Your task to perform on an android device: Search for the best vacuum on Amazon. Image 0: 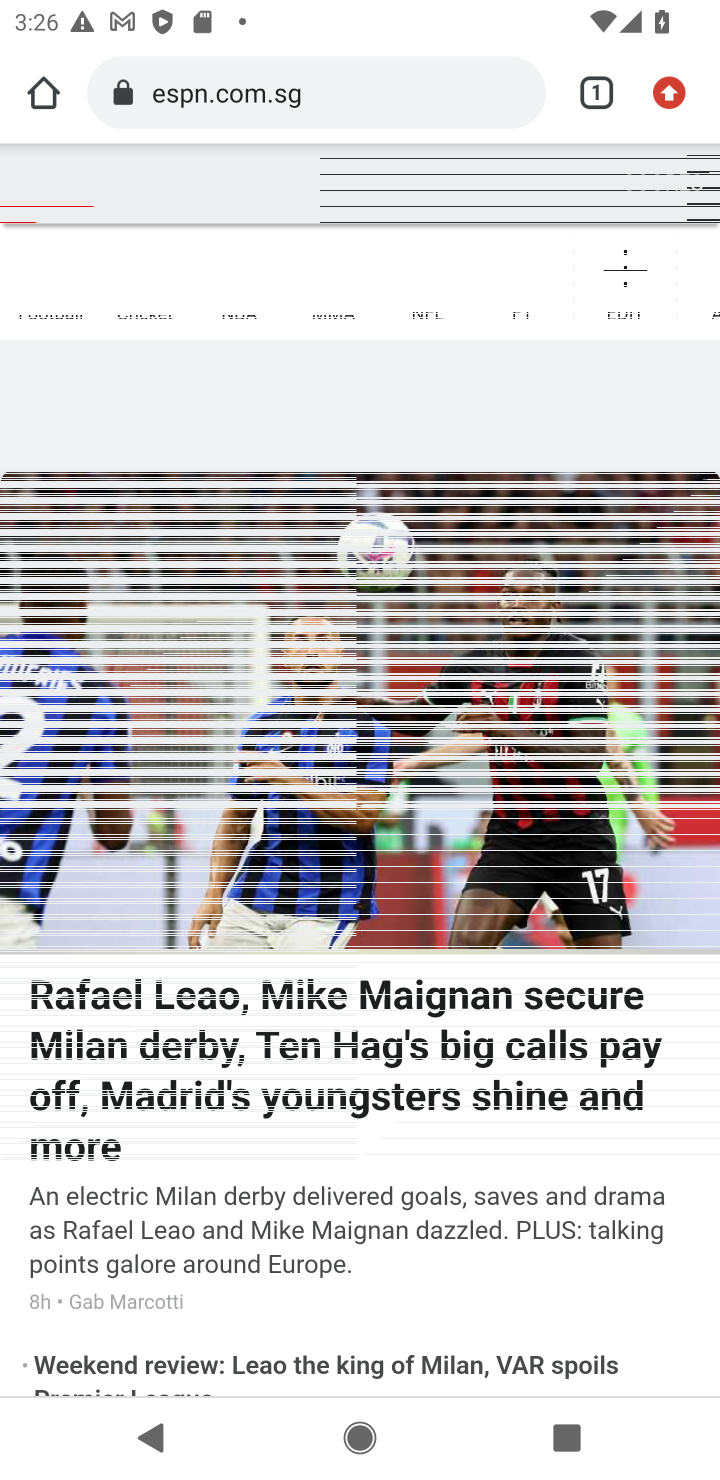
Step 0: press home button
Your task to perform on an android device: Search for the best vacuum on Amazon. Image 1: 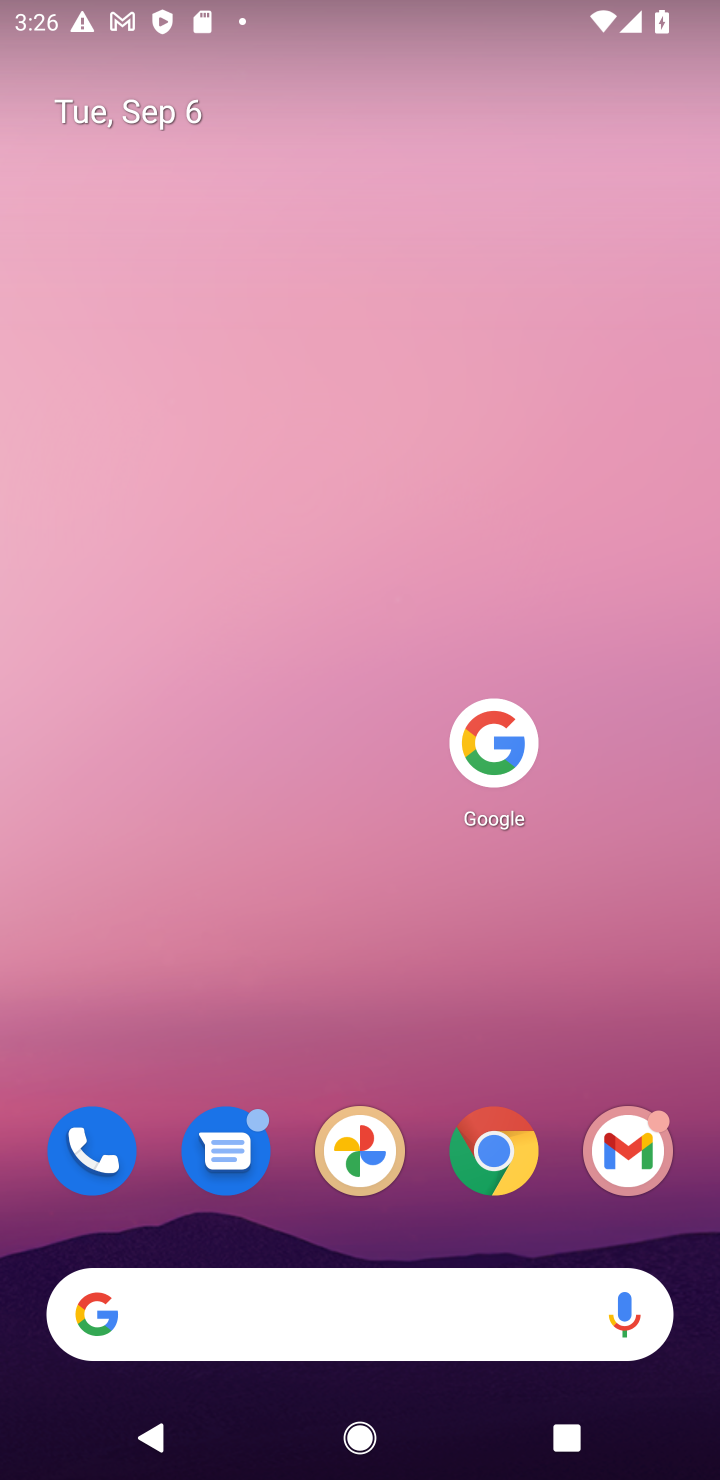
Step 1: click (500, 752)
Your task to perform on an android device: Search for the best vacuum on Amazon. Image 2: 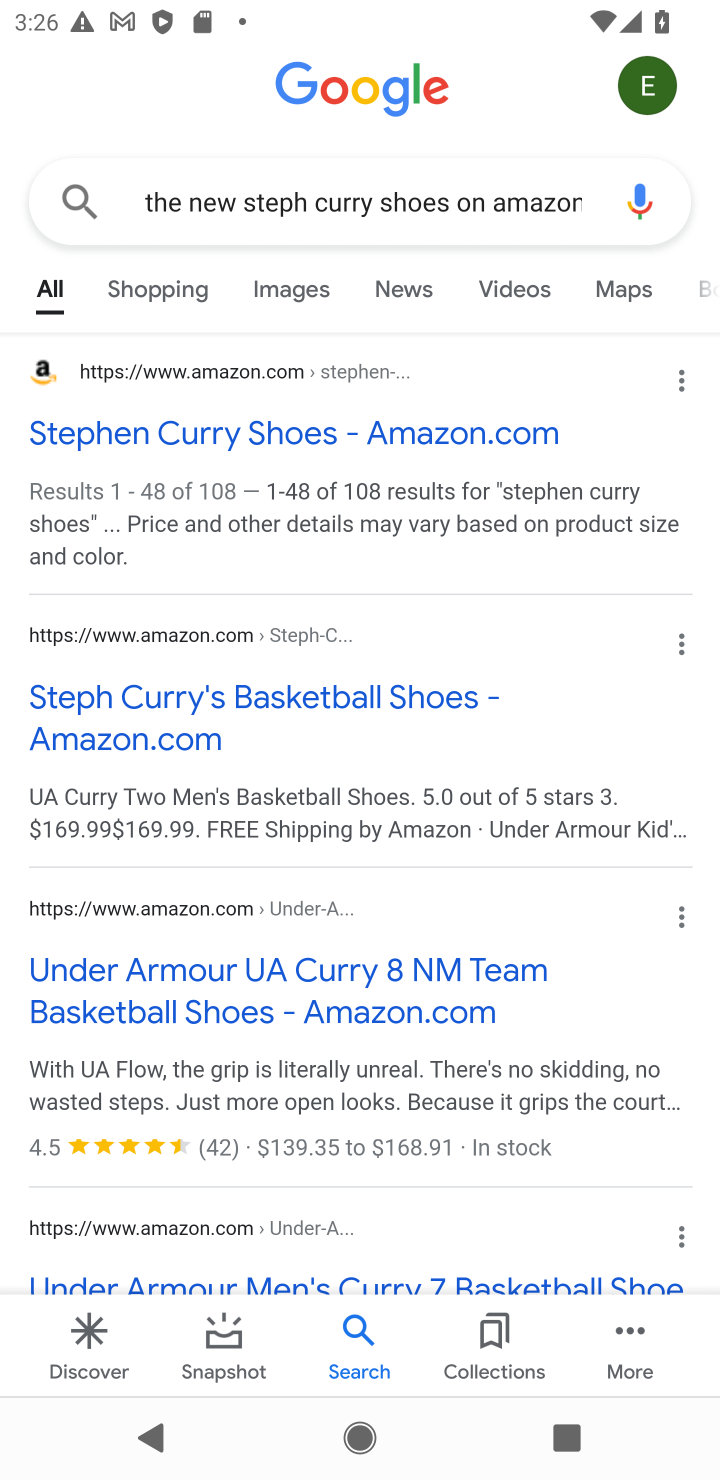
Step 2: click (349, 199)
Your task to perform on an android device: Search for the best vacuum on Amazon. Image 3: 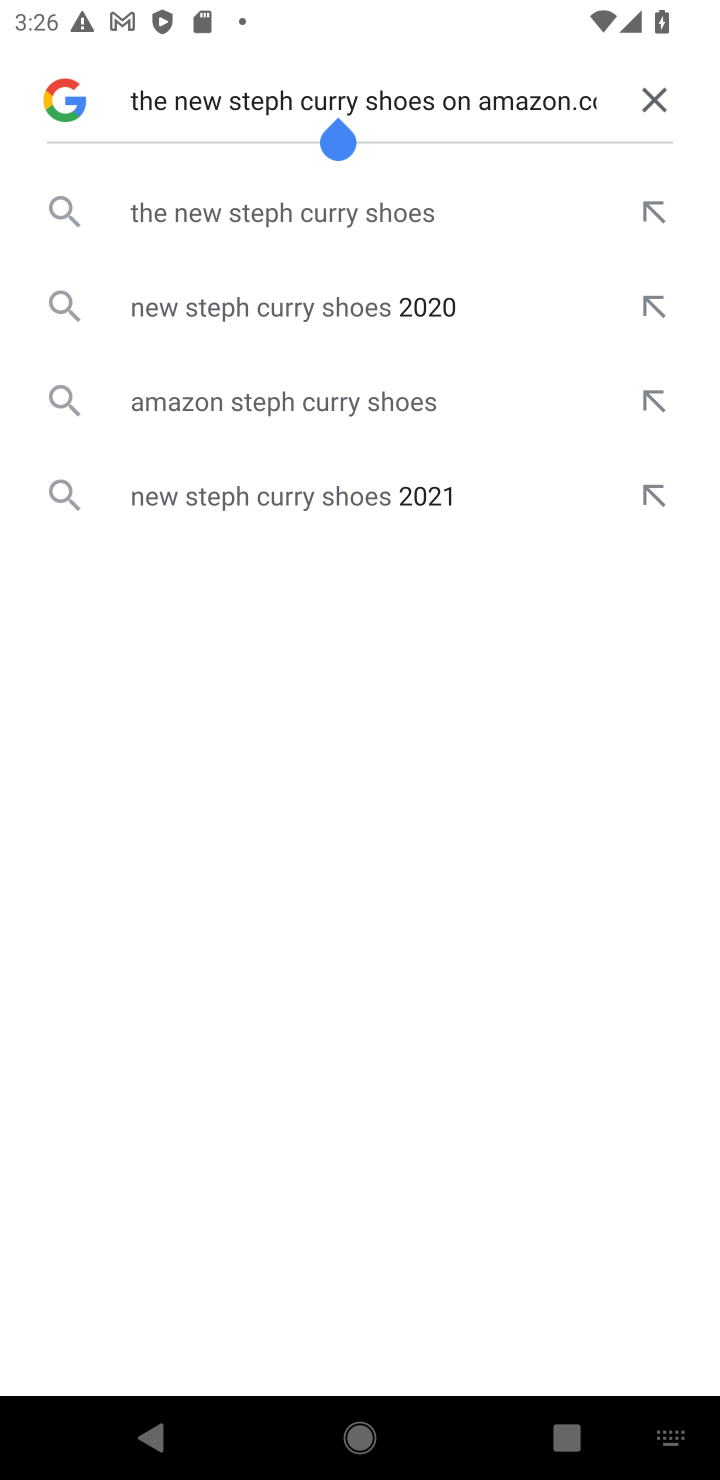
Step 3: click (663, 100)
Your task to perform on an android device: Search for the best vacuum on Amazon. Image 4: 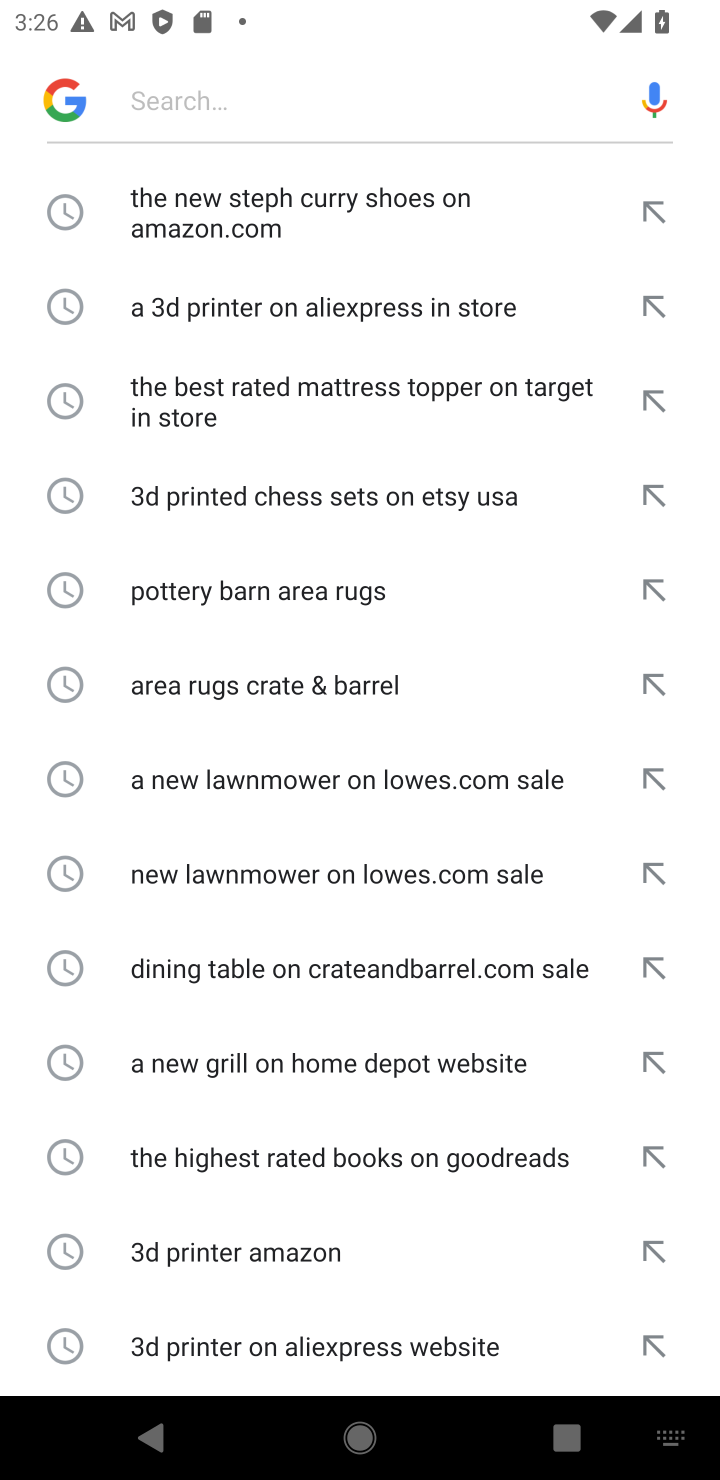
Step 4: click (415, 65)
Your task to perform on an android device: Search for the best vacuum on Amazon. Image 5: 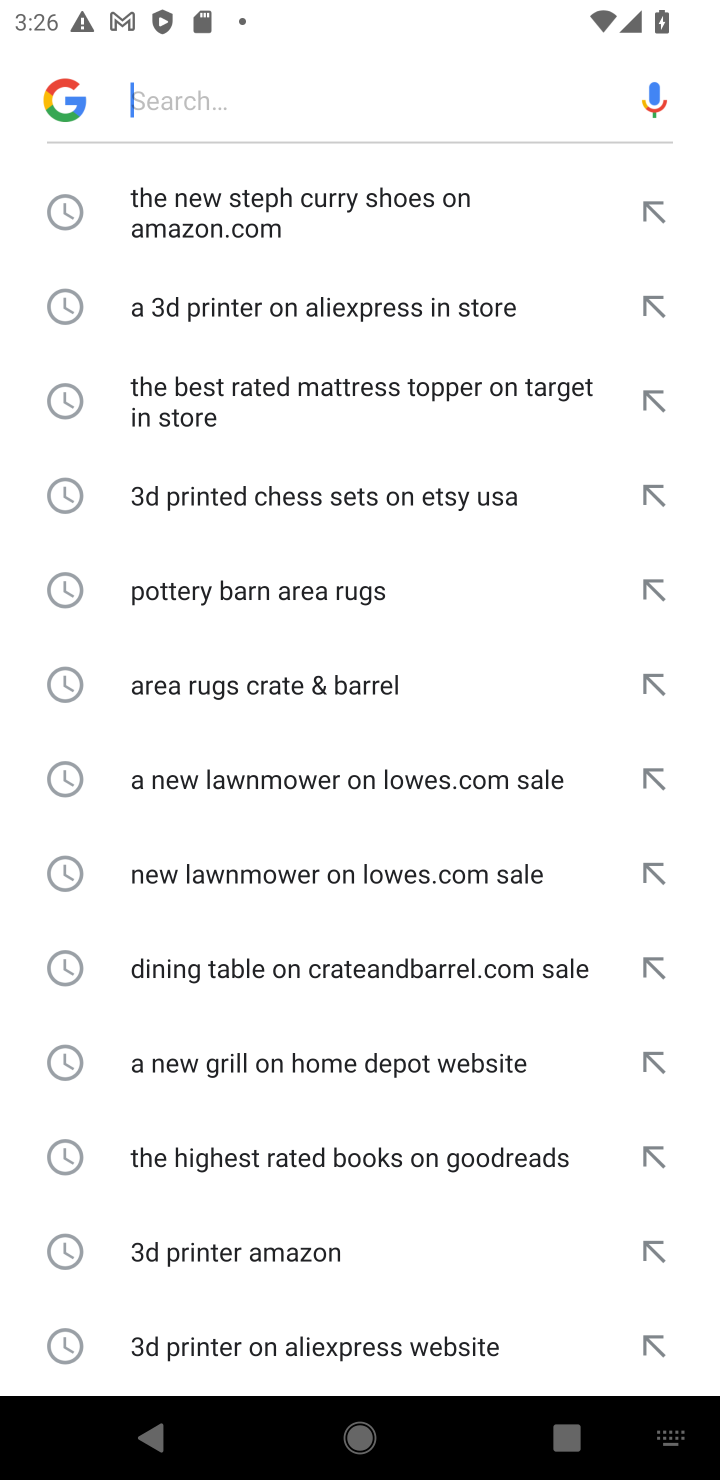
Step 5: type "the best vacuum on Amazon "
Your task to perform on an android device: Search for the best vacuum on Amazon. Image 6: 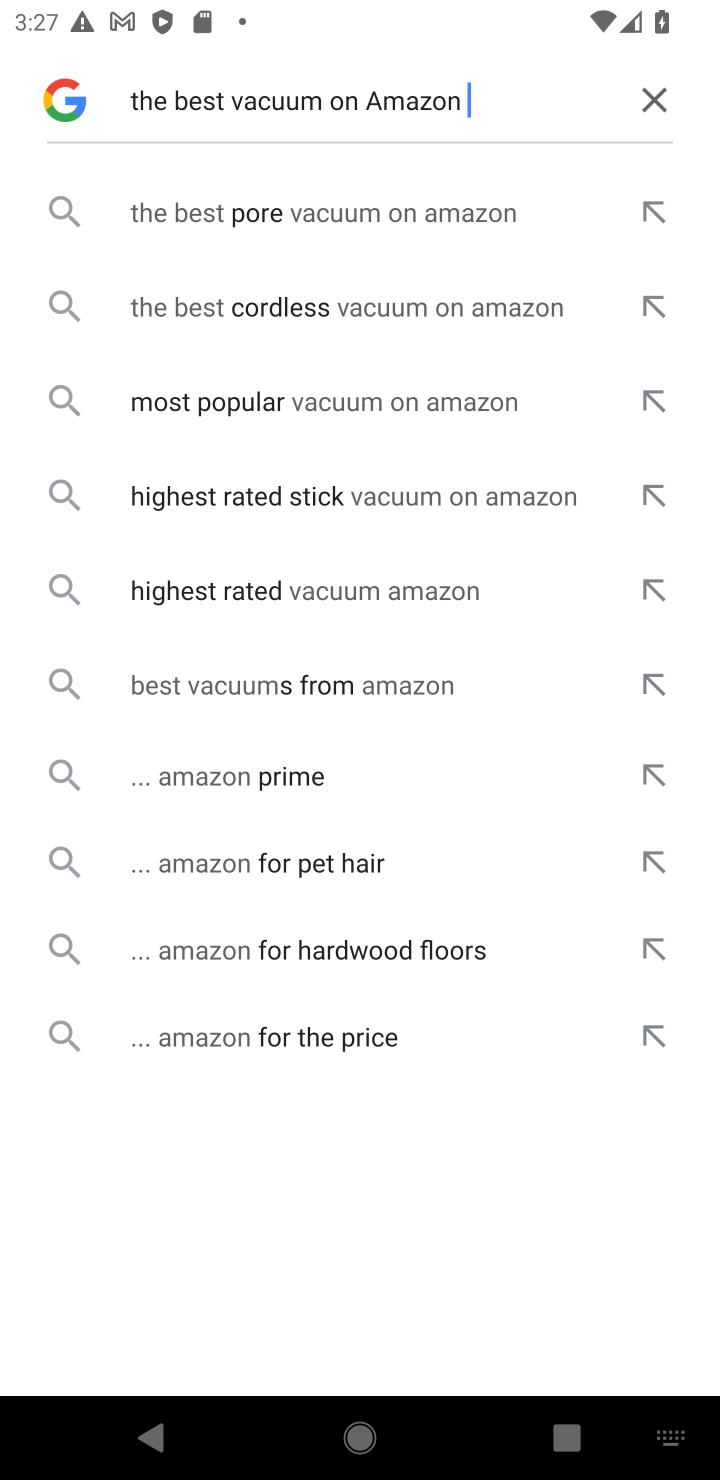
Step 6: click (397, 218)
Your task to perform on an android device: Search for the best vacuum on Amazon. Image 7: 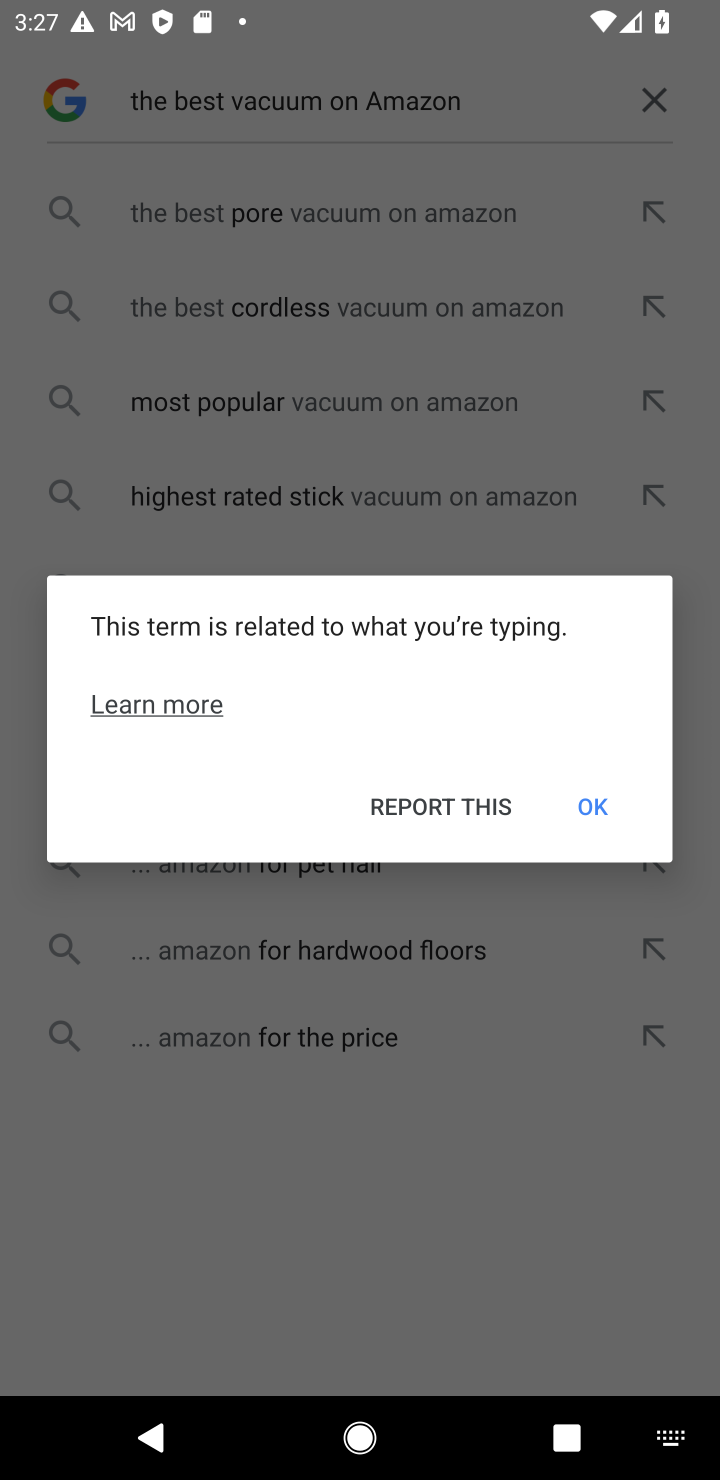
Step 7: click (590, 788)
Your task to perform on an android device: Search for the best vacuum on Amazon. Image 8: 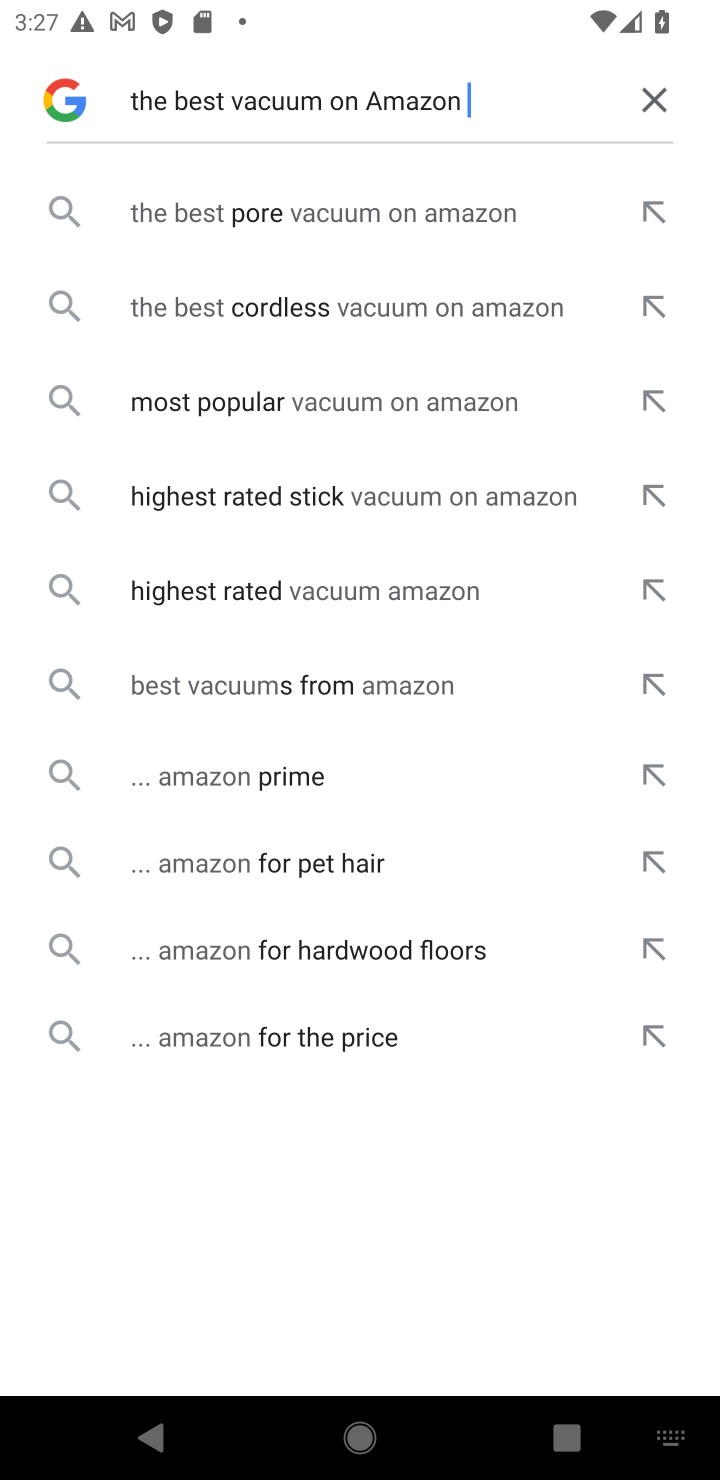
Step 8: click (399, 327)
Your task to perform on an android device: Search for the best vacuum on Amazon. Image 9: 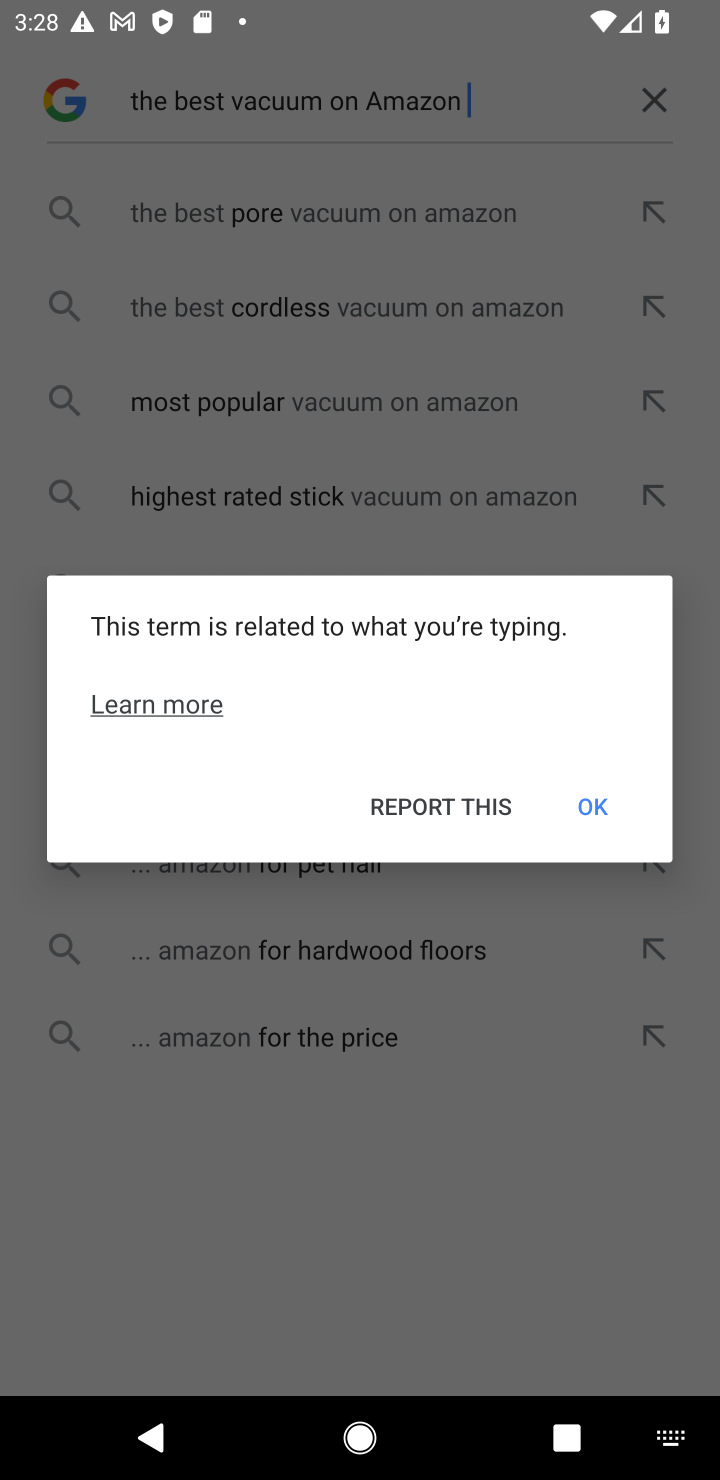
Step 9: click (597, 783)
Your task to perform on an android device: Search for the best vacuum on Amazon. Image 10: 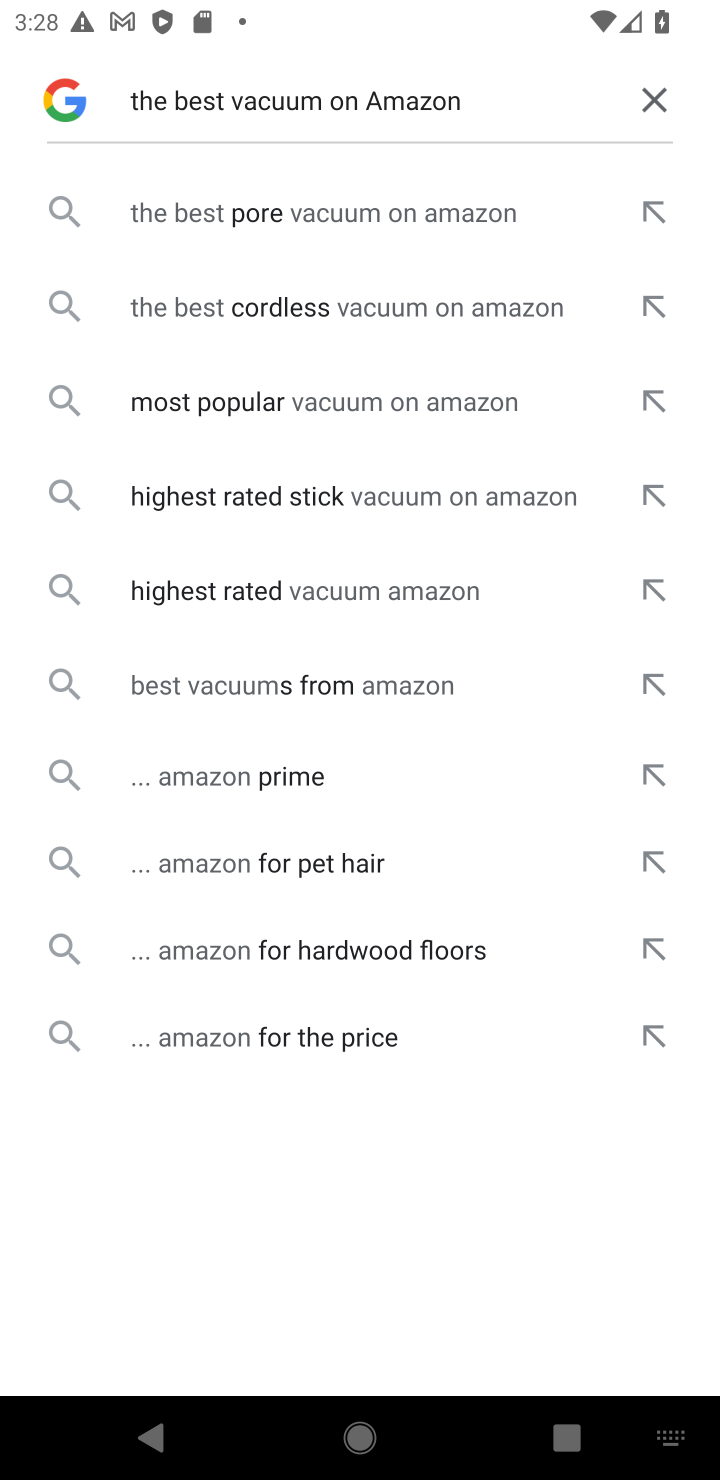
Step 10: click (364, 627)
Your task to perform on an android device: Search for the best vacuum on Amazon. Image 11: 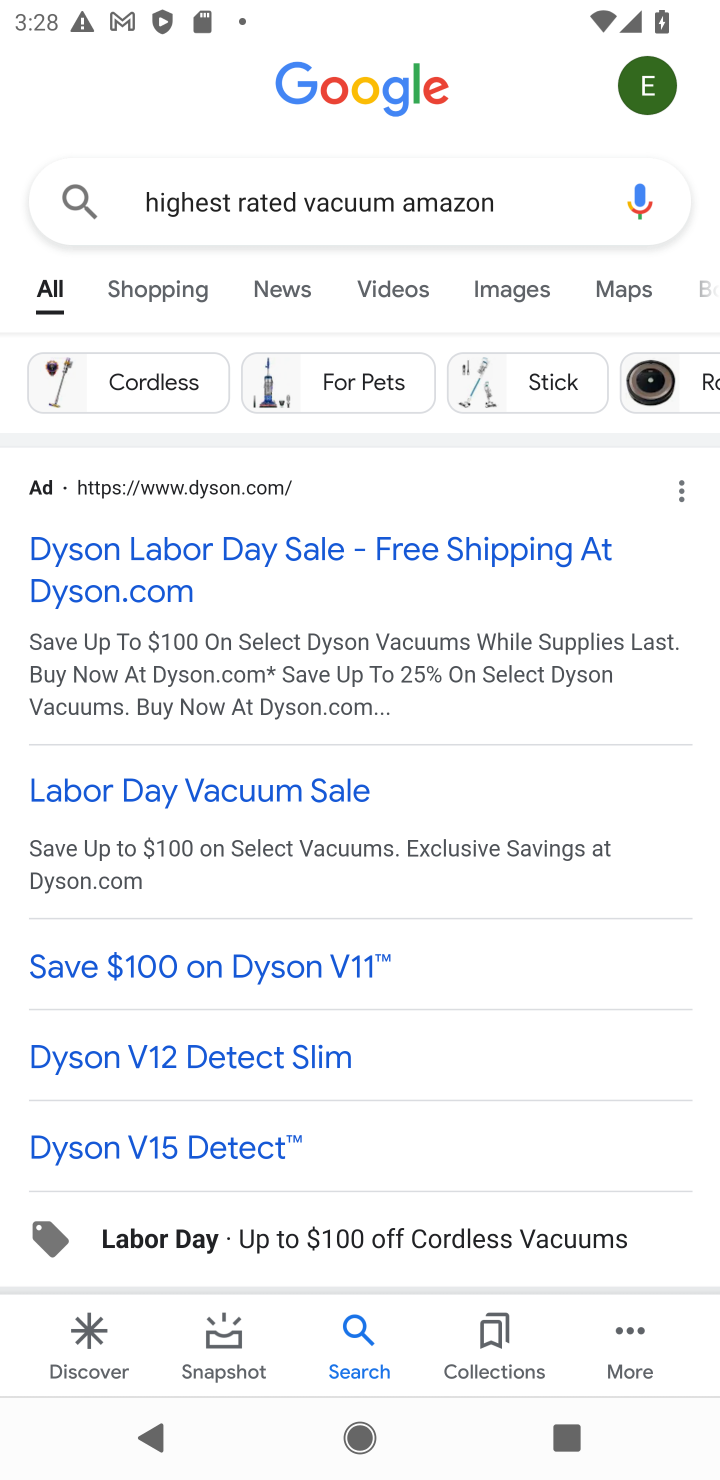
Step 11: drag from (298, 1029) to (410, 367)
Your task to perform on an android device: Search for the best vacuum on Amazon. Image 12: 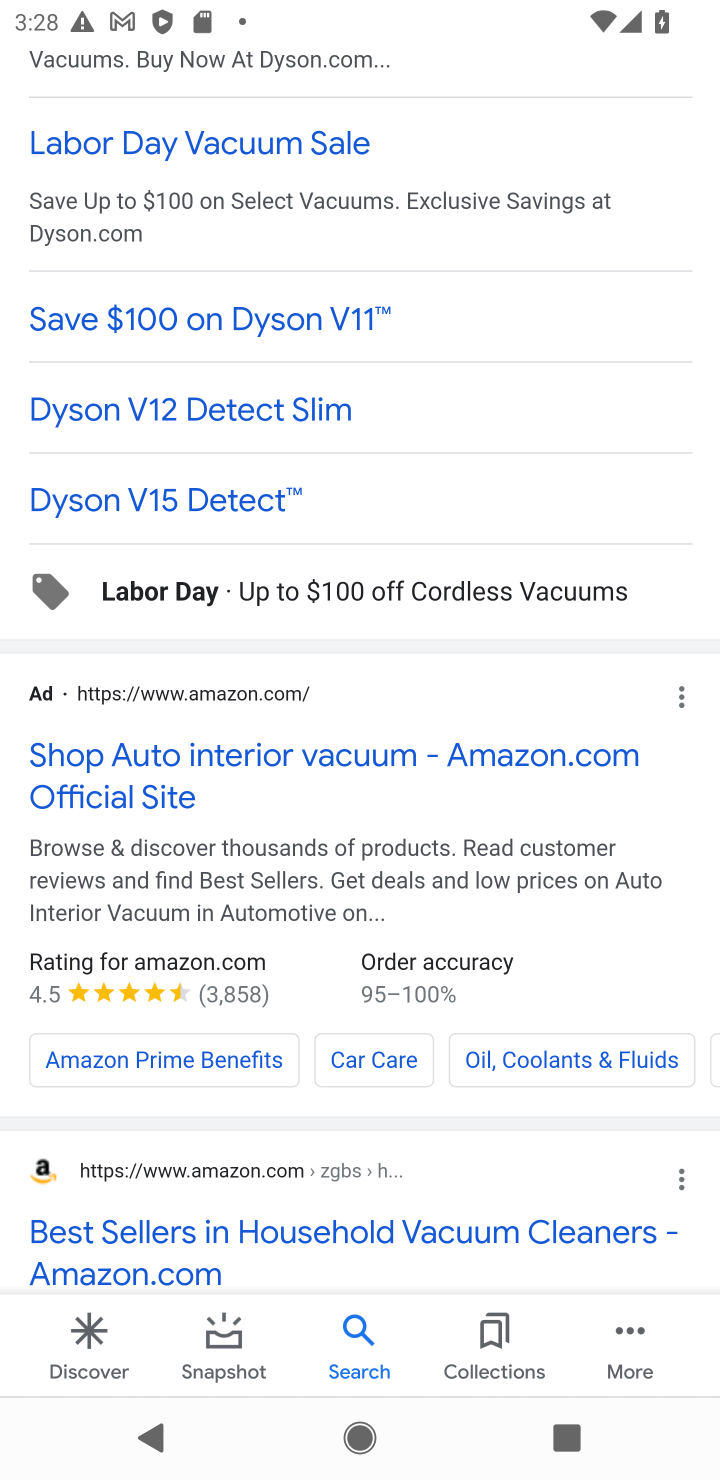
Step 12: click (254, 746)
Your task to perform on an android device: Search for the best vacuum on Amazon. Image 13: 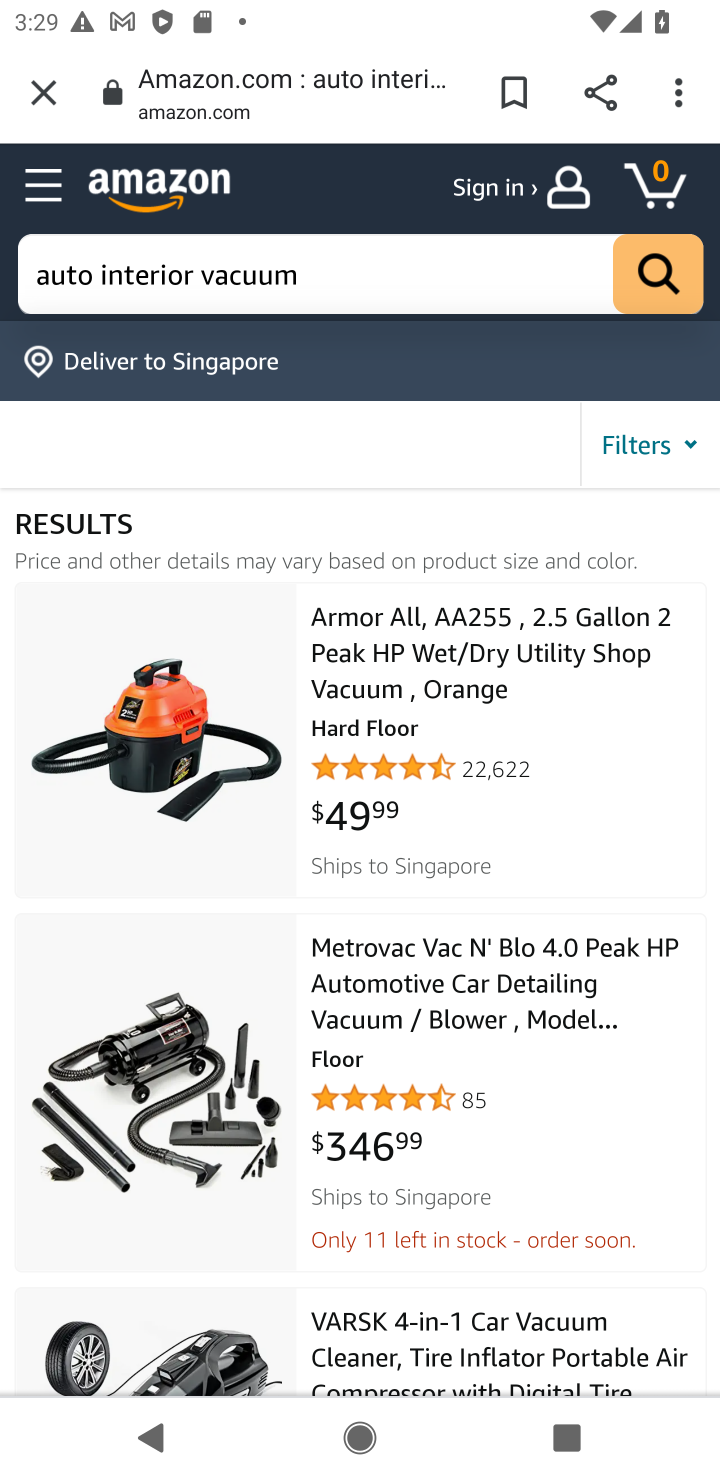
Step 13: task complete